Your task to perform on an android device: Search for pizza restaurants on Maps Image 0: 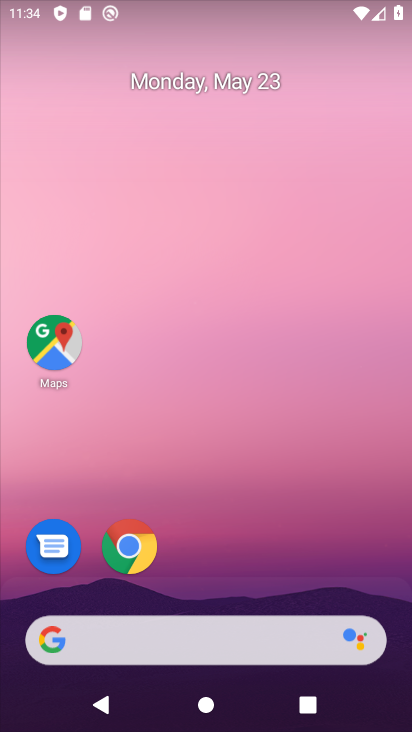
Step 0: click (57, 343)
Your task to perform on an android device: Search for pizza restaurants on Maps Image 1: 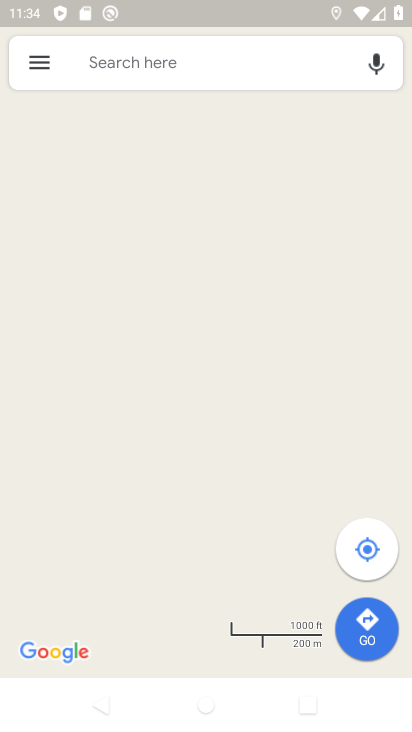
Step 1: click (190, 63)
Your task to perform on an android device: Search for pizza restaurants on Maps Image 2: 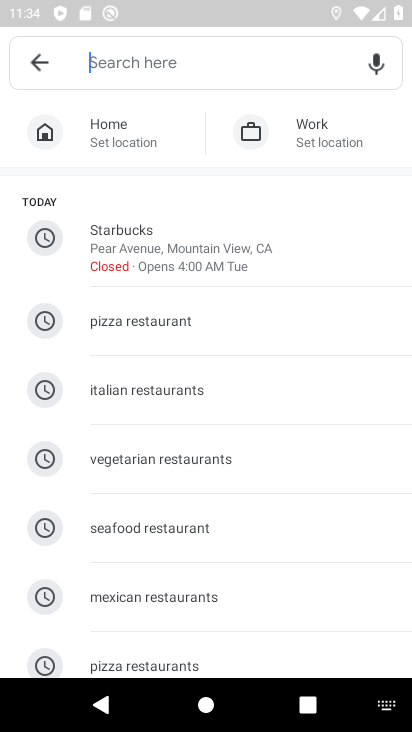
Step 2: type "Pizza restaurants"
Your task to perform on an android device: Search for pizza restaurants on Maps Image 3: 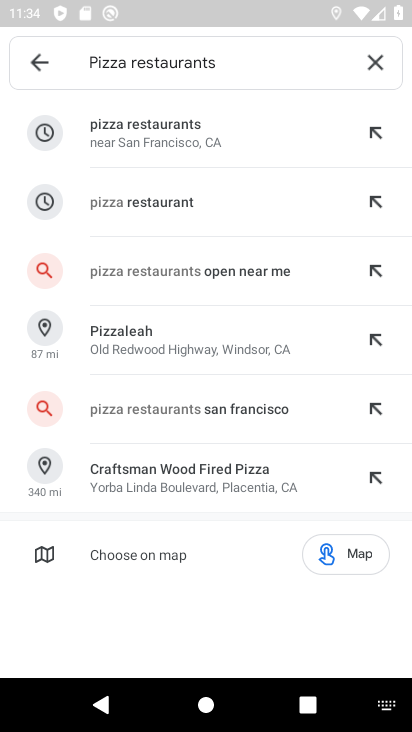
Step 3: click (196, 130)
Your task to perform on an android device: Search for pizza restaurants on Maps Image 4: 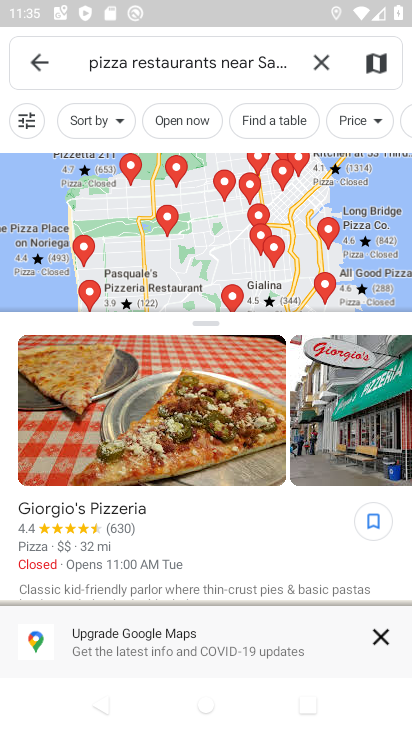
Step 4: task complete